Your task to perform on an android device: Open notification settings Image 0: 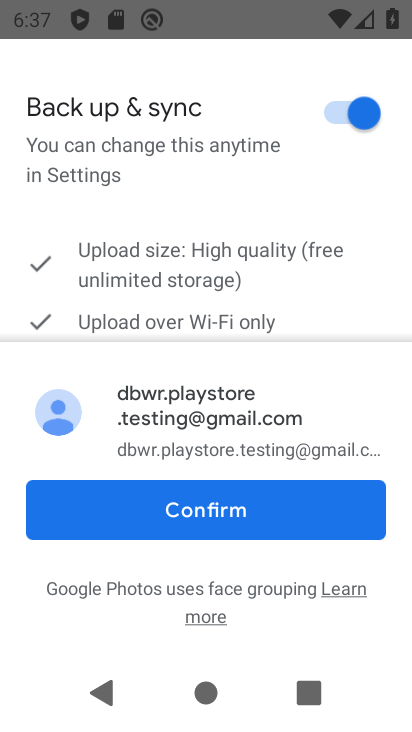
Step 0: press home button
Your task to perform on an android device: Open notification settings Image 1: 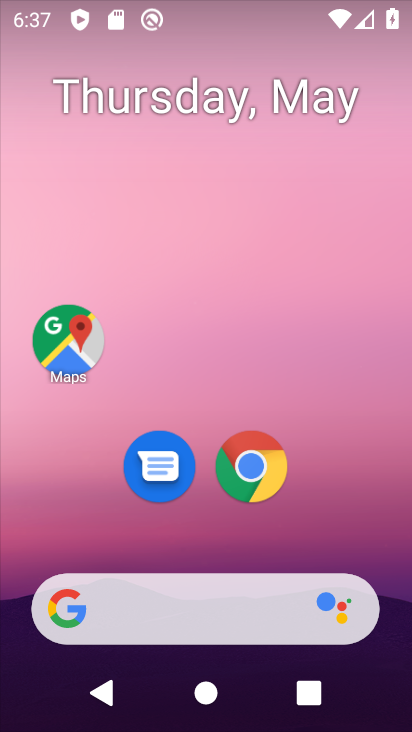
Step 1: drag from (366, 466) to (282, 79)
Your task to perform on an android device: Open notification settings Image 2: 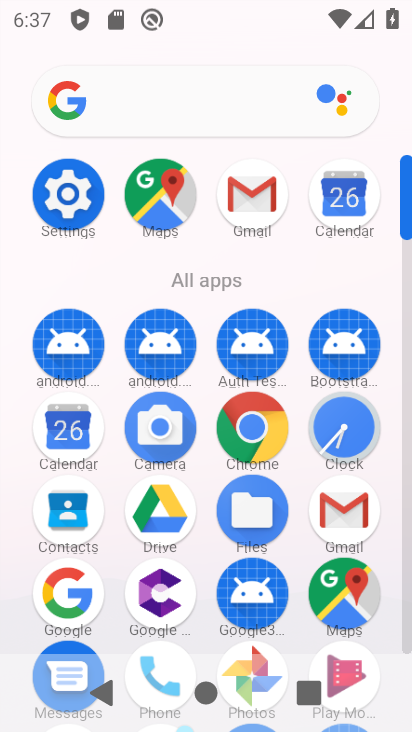
Step 2: click (73, 194)
Your task to perform on an android device: Open notification settings Image 3: 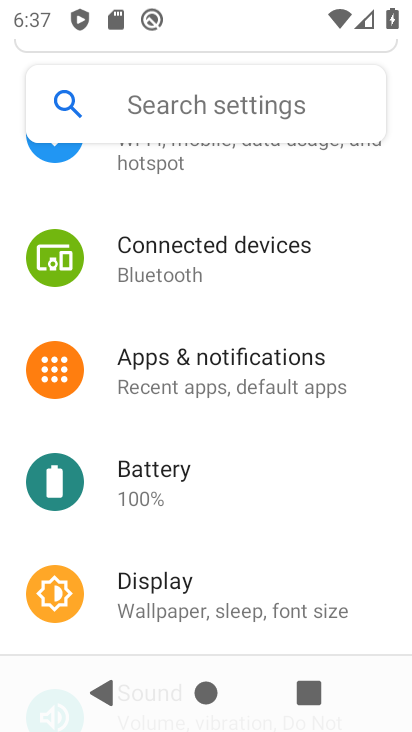
Step 3: click (235, 365)
Your task to perform on an android device: Open notification settings Image 4: 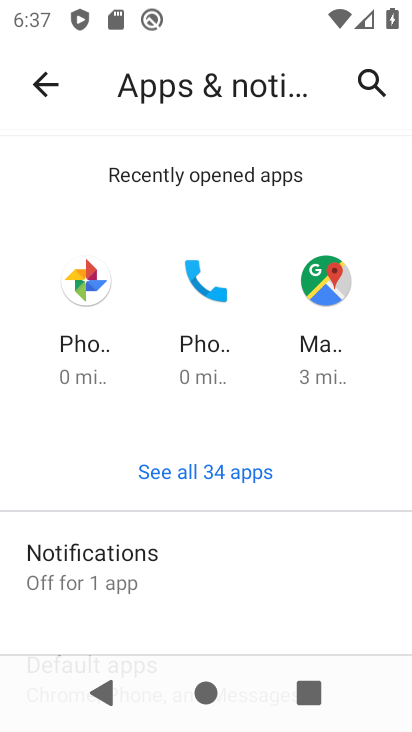
Step 4: task complete